Your task to perform on an android device: Go to internet settings Image 0: 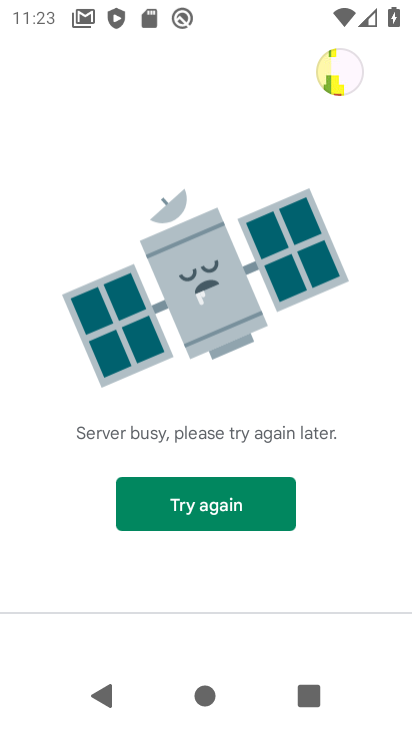
Step 0: press home button
Your task to perform on an android device: Go to internet settings Image 1: 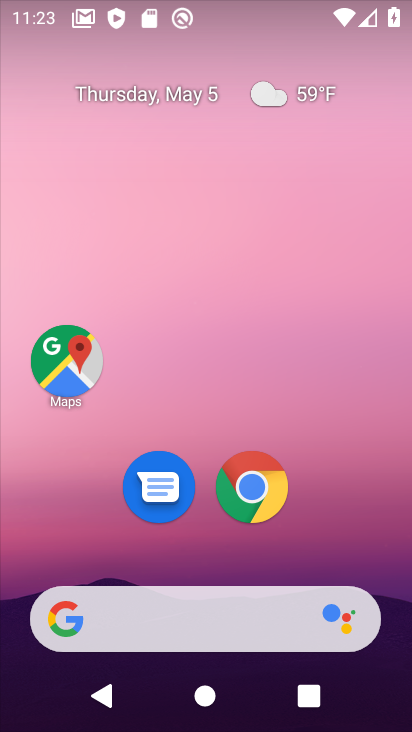
Step 1: drag from (236, 550) to (167, 63)
Your task to perform on an android device: Go to internet settings Image 2: 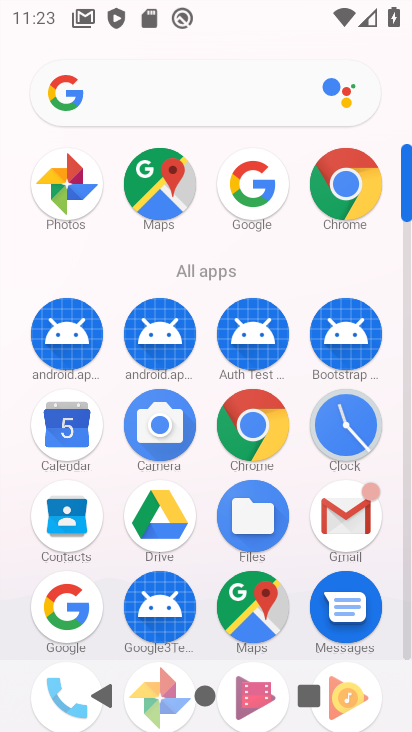
Step 2: drag from (296, 543) to (284, 165)
Your task to perform on an android device: Go to internet settings Image 3: 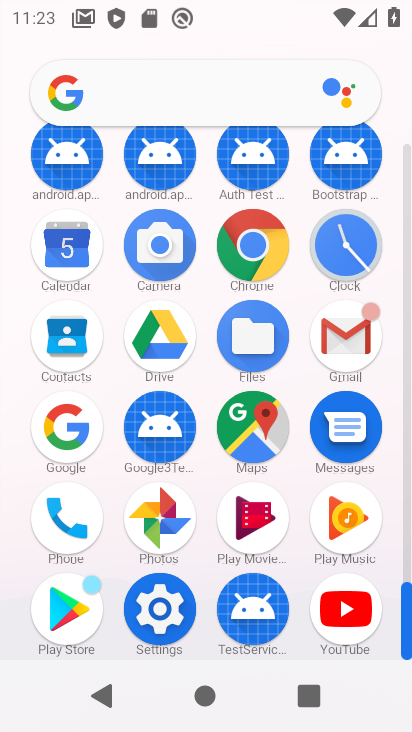
Step 3: click (154, 624)
Your task to perform on an android device: Go to internet settings Image 4: 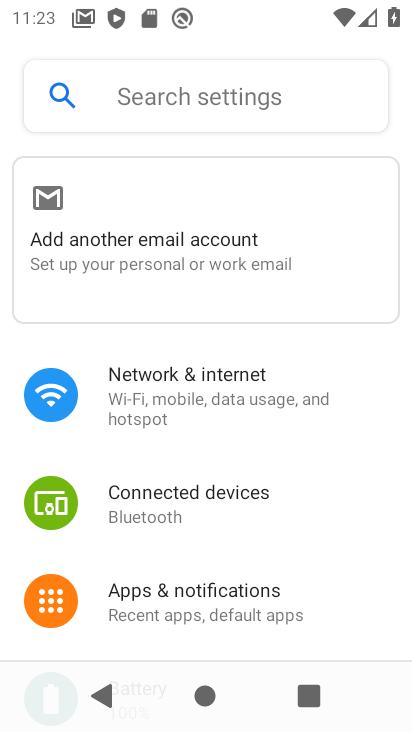
Step 4: click (134, 398)
Your task to perform on an android device: Go to internet settings Image 5: 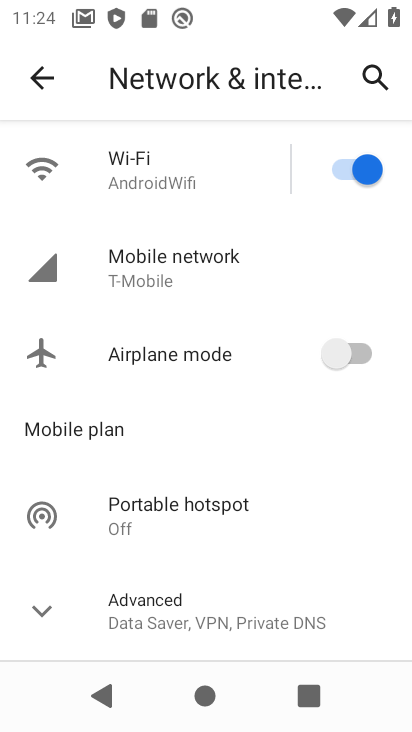
Step 5: task complete